Your task to perform on an android device: Open Android settings Image 0: 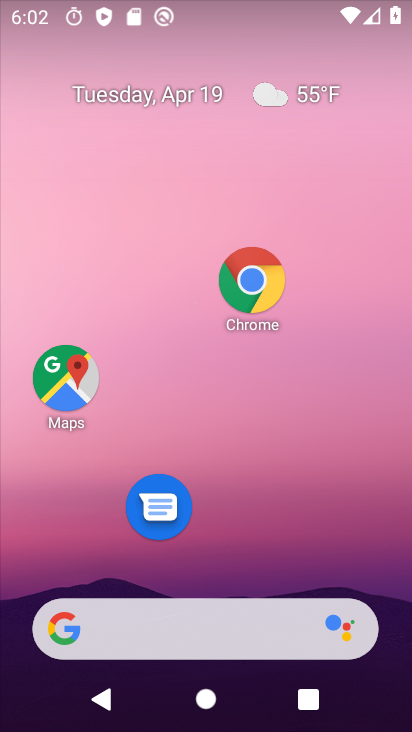
Step 0: drag from (255, 560) to (208, 205)
Your task to perform on an android device: Open Android settings Image 1: 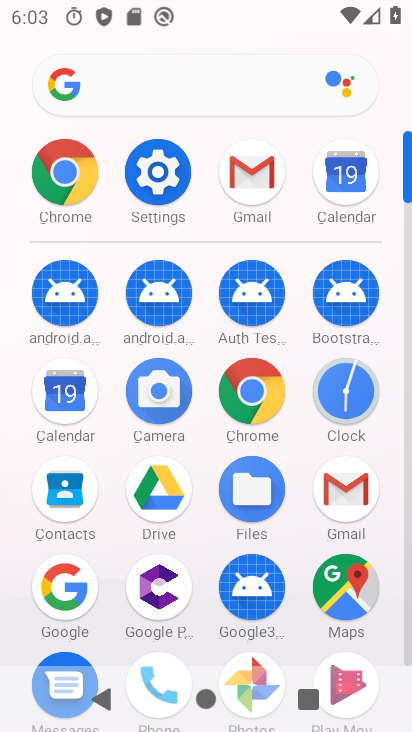
Step 1: drag from (201, 574) to (179, 246)
Your task to perform on an android device: Open Android settings Image 2: 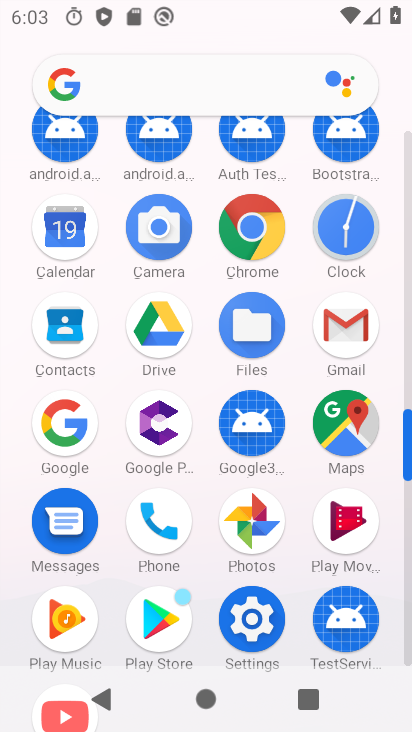
Step 2: click (251, 622)
Your task to perform on an android device: Open Android settings Image 3: 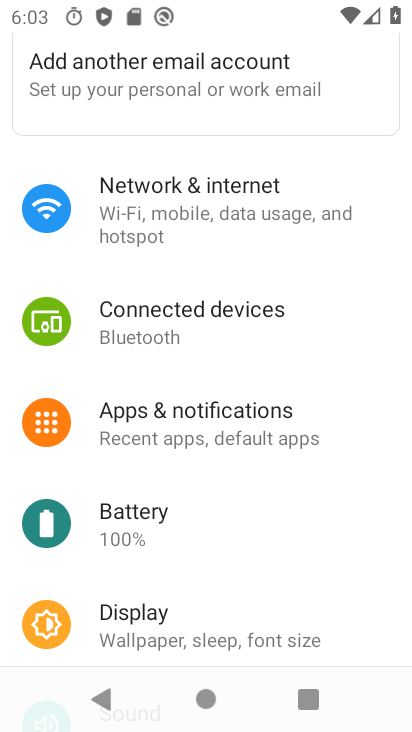
Step 3: task complete